Your task to perform on an android device: uninstall "Yahoo Mail" Image 0: 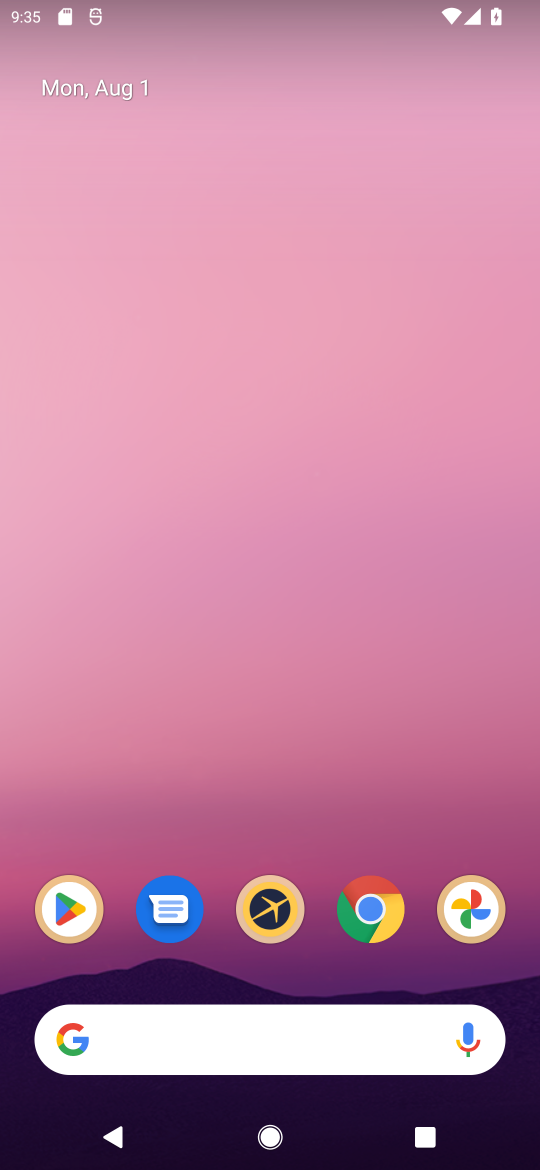
Step 0: click (83, 907)
Your task to perform on an android device: uninstall "Yahoo Mail" Image 1: 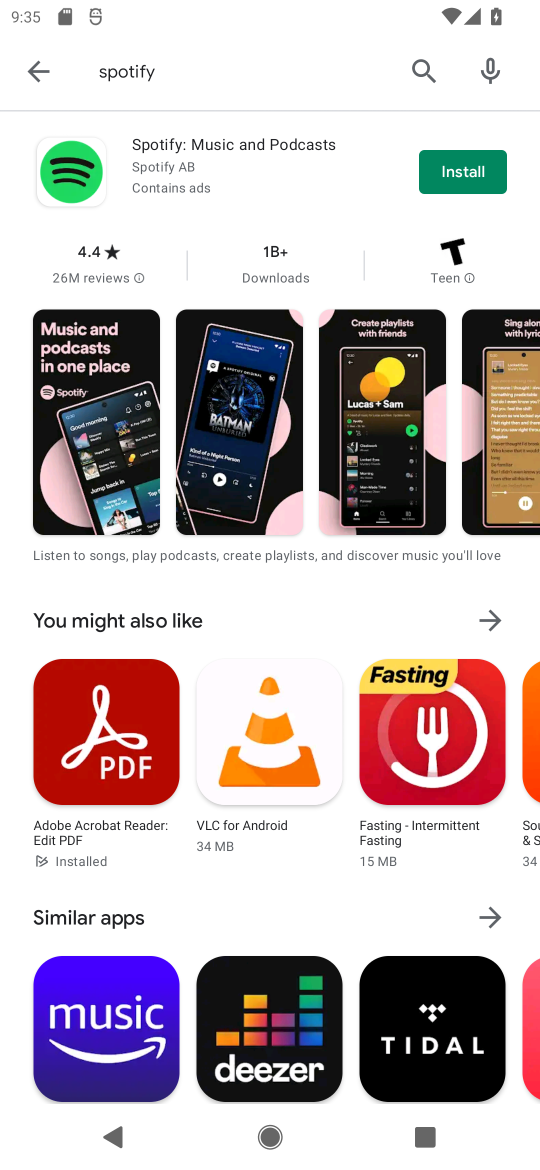
Step 1: click (186, 55)
Your task to perform on an android device: uninstall "Yahoo Mail" Image 2: 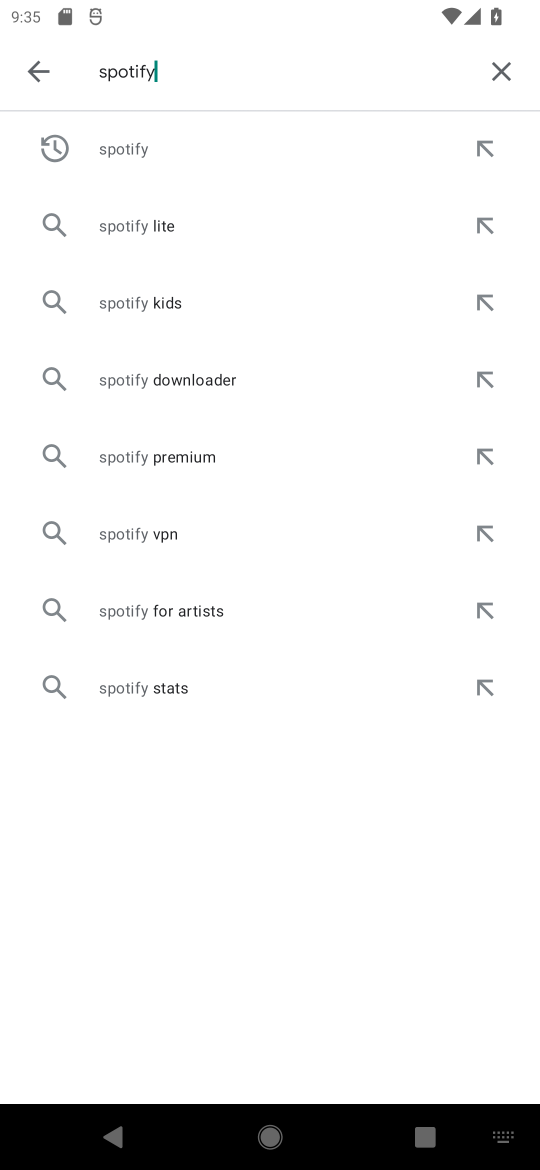
Step 2: click (500, 63)
Your task to perform on an android device: uninstall "Yahoo Mail" Image 3: 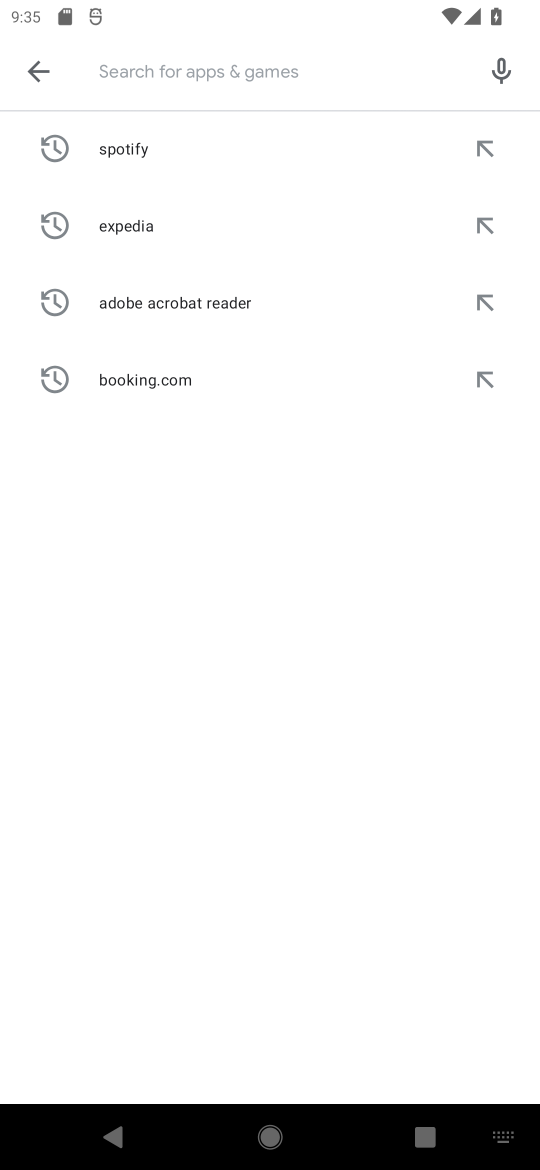
Step 3: type "yahoo mail"
Your task to perform on an android device: uninstall "Yahoo Mail" Image 4: 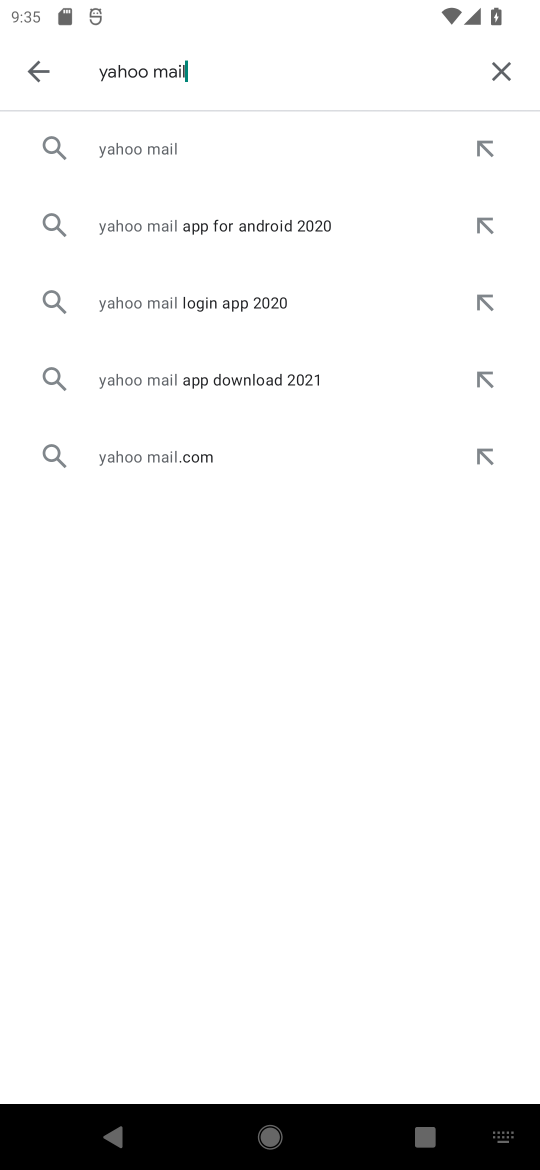
Step 4: click (146, 153)
Your task to perform on an android device: uninstall "Yahoo Mail" Image 5: 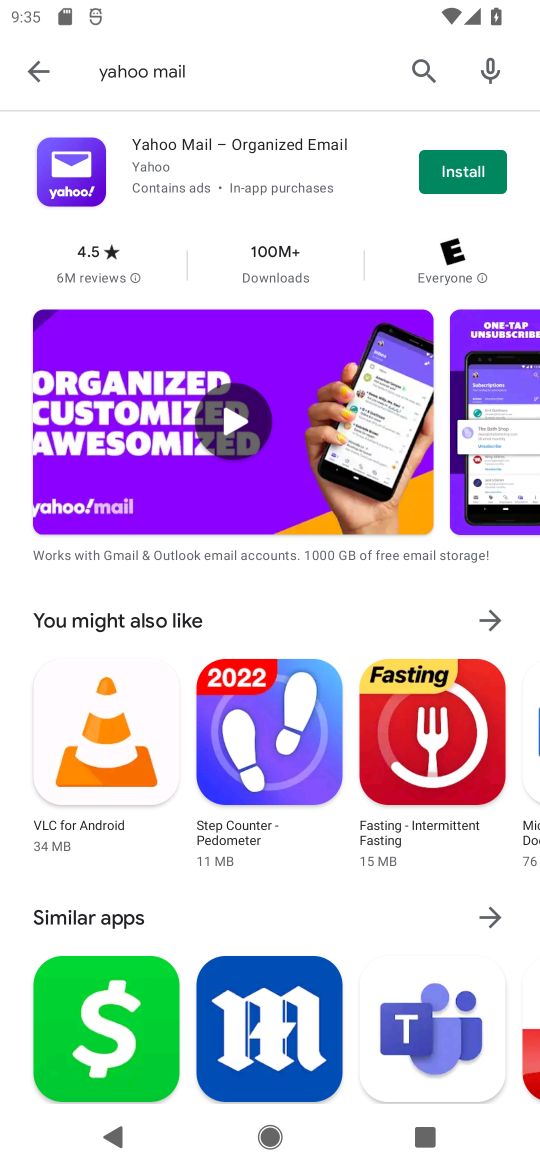
Step 5: task complete